Your task to perform on an android device: turn on sleep mode Image 0: 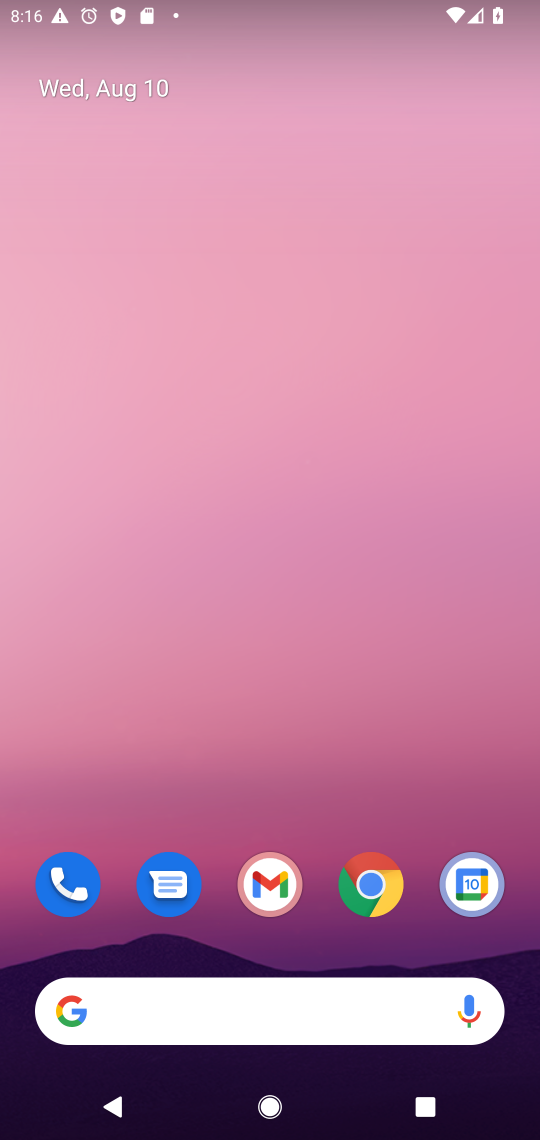
Step 0: drag from (60, 1093) to (400, 296)
Your task to perform on an android device: turn on sleep mode Image 1: 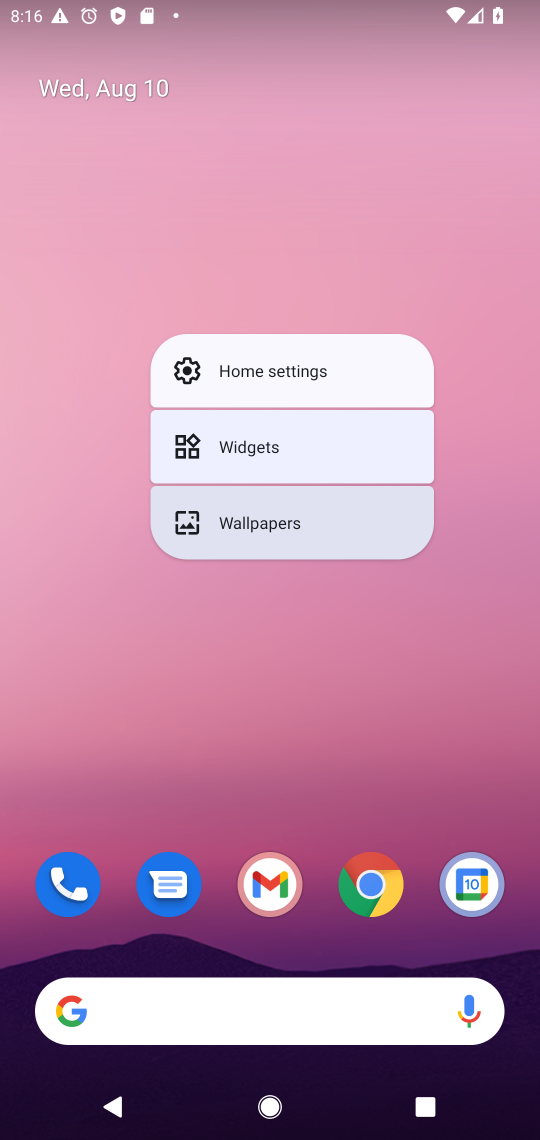
Step 1: task complete